Your task to perform on an android device: change alarm snooze length Image 0: 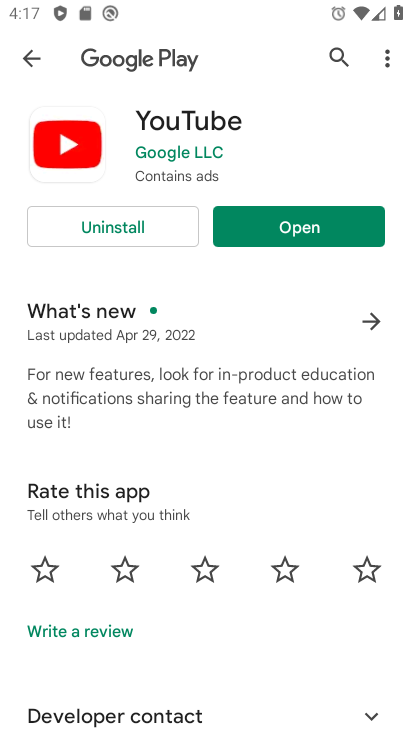
Step 0: press home button
Your task to perform on an android device: change alarm snooze length Image 1: 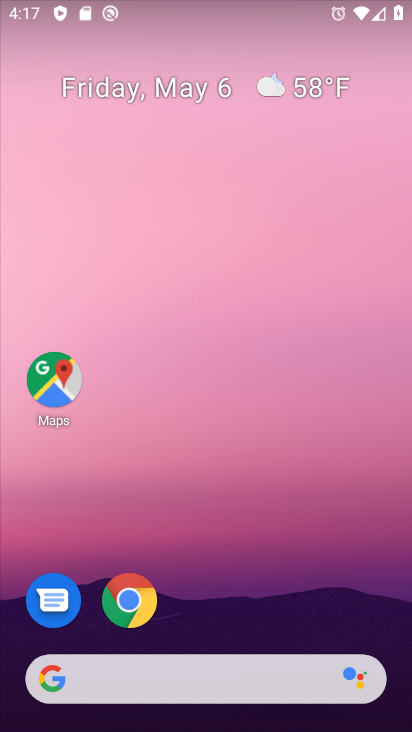
Step 1: drag from (209, 626) to (284, 11)
Your task to perform on an android device: change alarm snooze length Image 2: 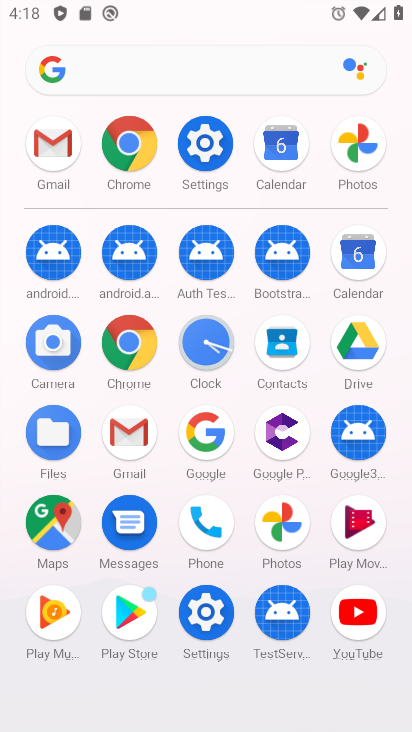
Step 2: click (209, 351)
Your task to perform on an android device: change alarm snooze length Image 3: 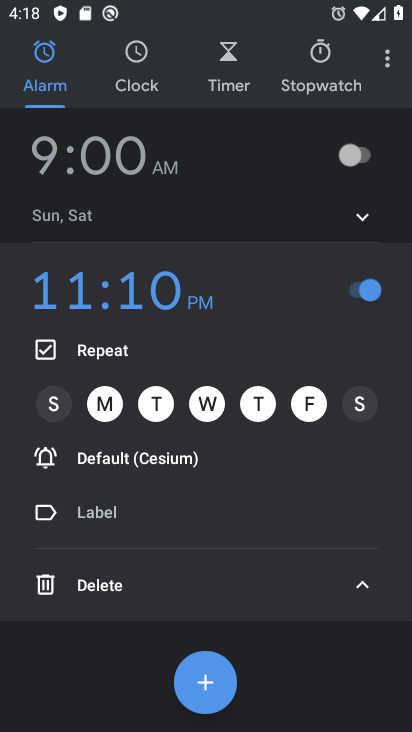
Step 3: click (382, 59)
Your task to perform on an android device: change alarm snooze length Image 4: 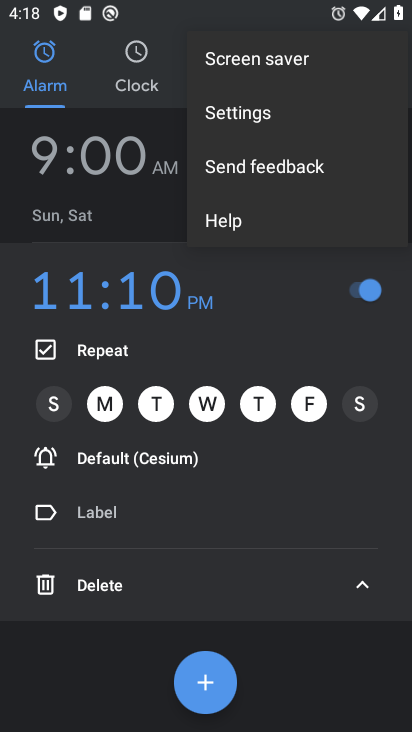
Step 4: click (276, 115)
Your task to perform on an android device: change alarm snooze length Image 5: 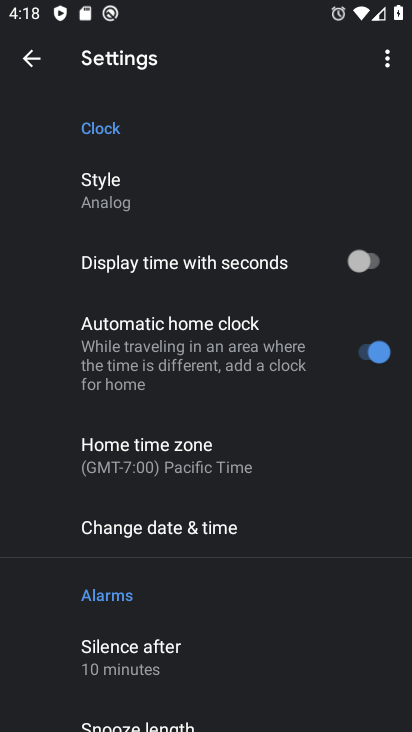
Step 5: drag from (179, 609) to (239, 199)
Your task to perform on an android device: change alarm snooze length Image 6: 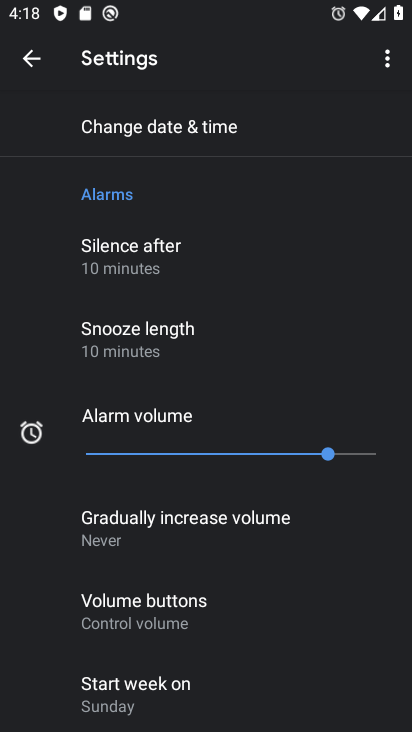
Step 6: drag from (194, 572) to (257, 87)
Your task to perform on an android device: change alarm snooze length Image 7: 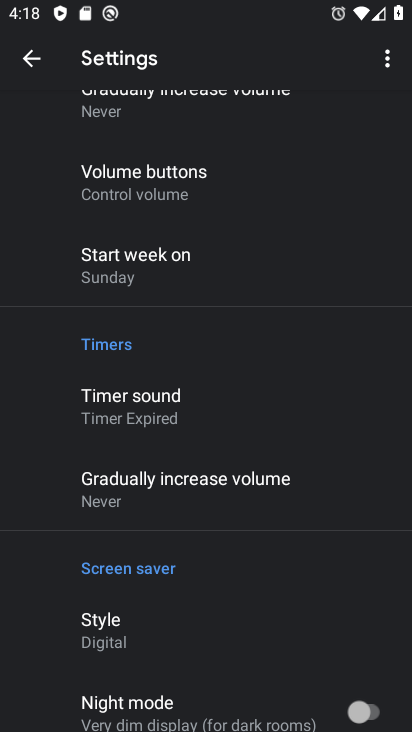
Step 7: drag from (204, 593) to (252, 279)
Your task to perform on an android device: change alarm snooze length Image 8: 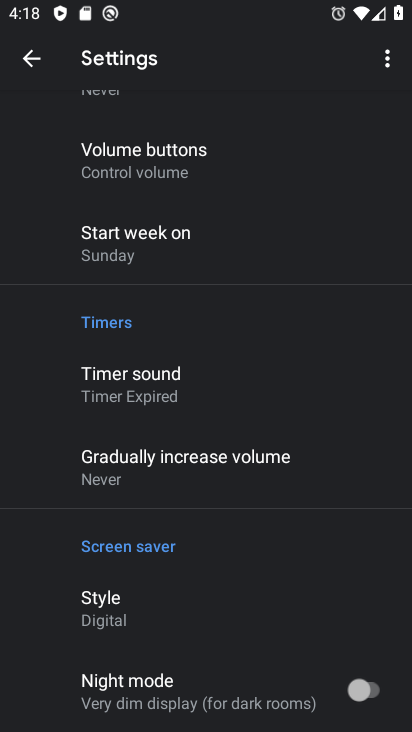
Step 8: drag from (219, 615) to (226, 418)
Your task to perform on an android device: change alarm snooze length Image 9: 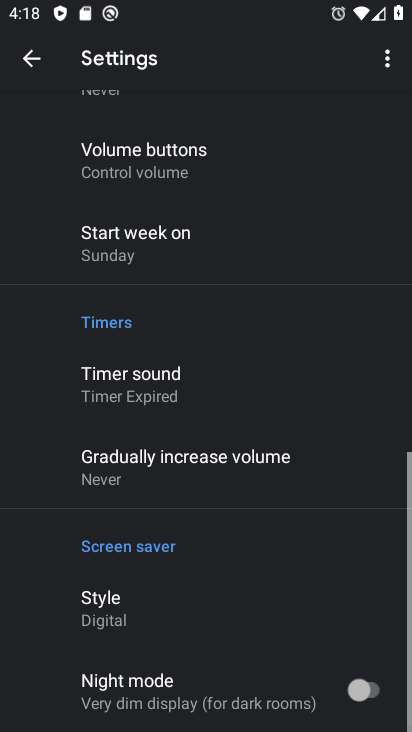
Step 9: drag from (208, 219) to (219, 536)
Your task to perform on an android device: change alarm snooze length Image 10: 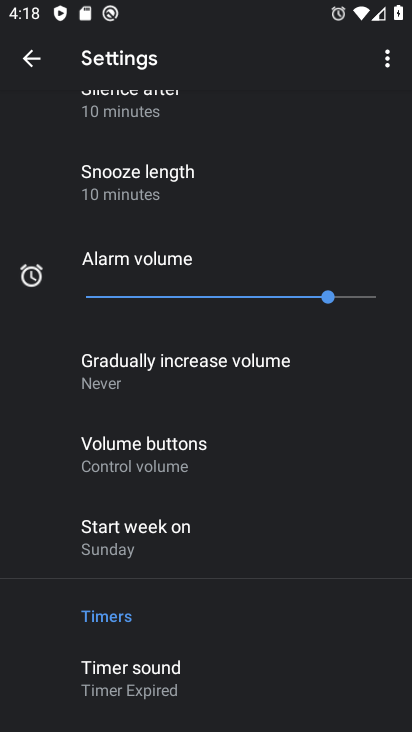
Step 10: drag from (235, 425) to (271, 661)
Your task to perform on an android device: change alarm snooze length Image 11: 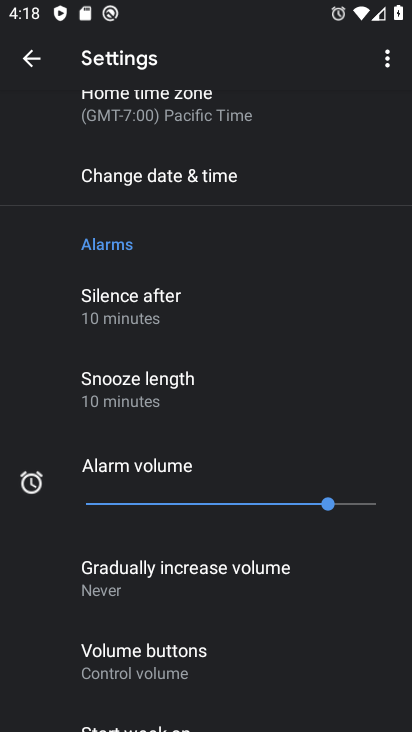
Step 11: click (189, 381)
Your task to perform on an android device: change alarm snooze length Image 12: 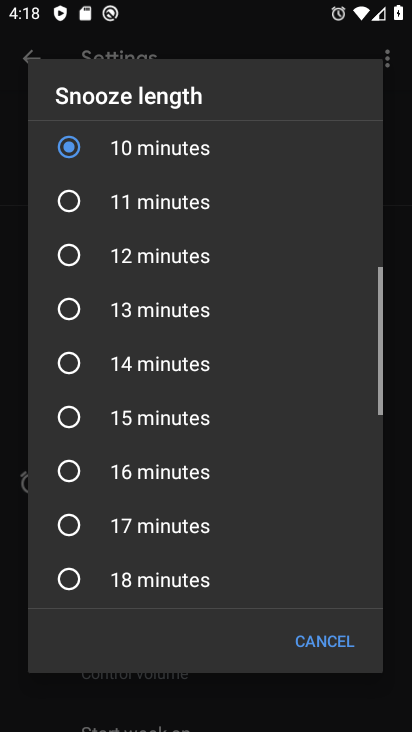
Step 12: click (141, 441)
Your task to perform on an android device: change alarm snooze length Image 13: 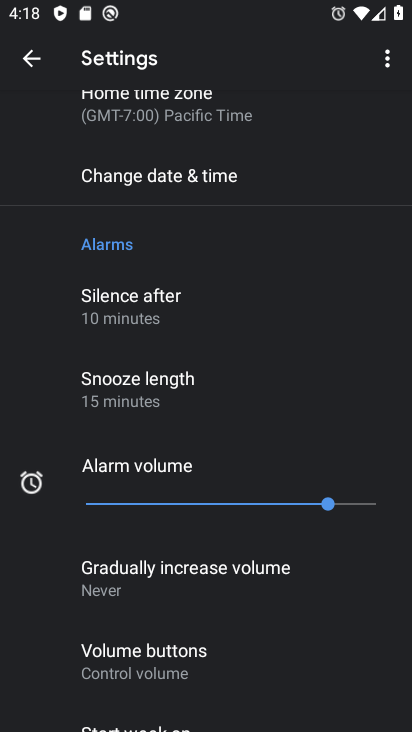
Step 13: task complete